Your task to perform on an android device: Open the calendar app, open the side menu, and click the "Day" option Image 0: 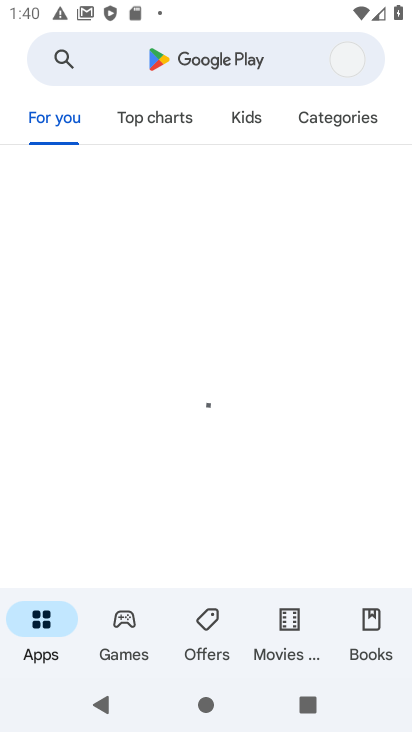
Step 0: press home button
Your task to perform on an android device: Open the calendar app, open the side menu, and click the "Day" option Image 1: 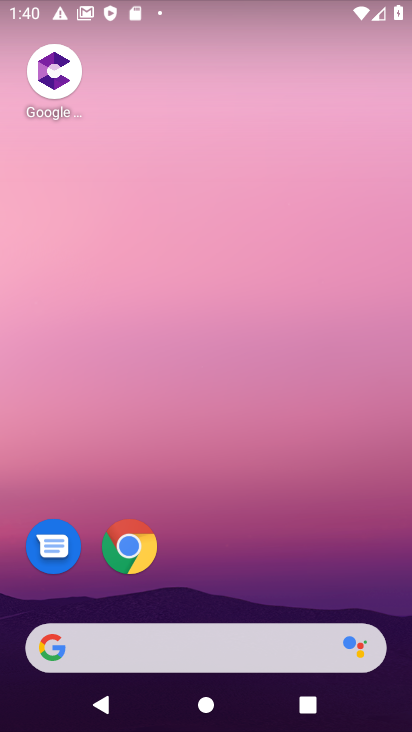
Step 1: drag from (238, 597) to (177, 76)
Your task to perform on an android device: Open the calendar app, open the side menu, and click the "Day" option Image 2: 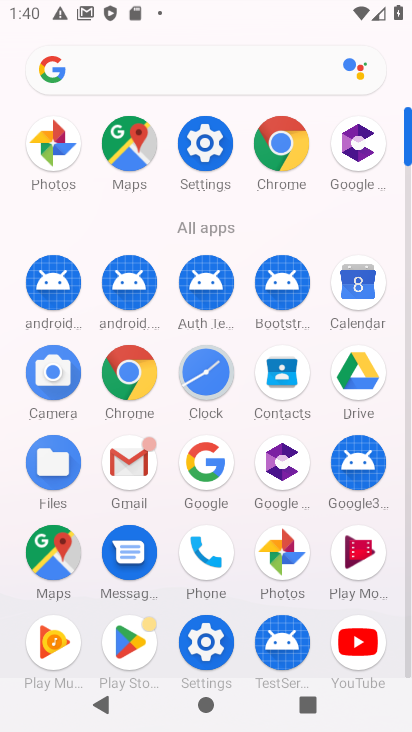
Step 2: click (366, 286)
Your task to perform on an android device: Open the calendar app, open the side menu, and click the "Day" option Image 3: 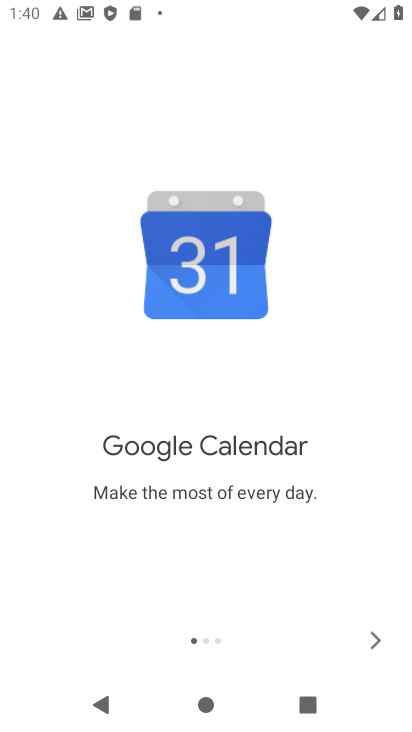
Step 3: click (374, 645)
Your task to perform on an android device: Open the calendar app, open the side menu, and click the "Day" option Image 4: 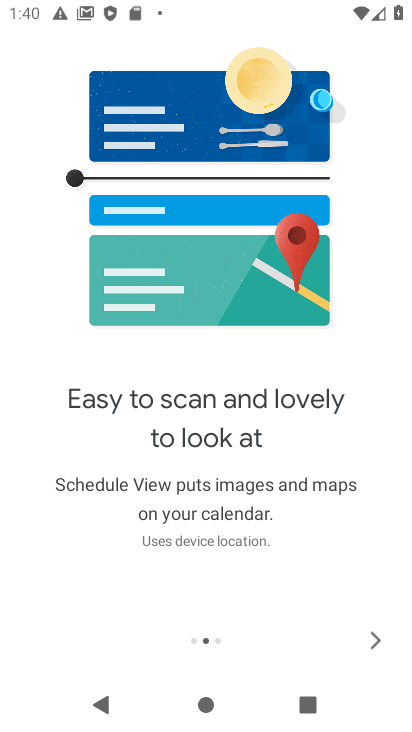
Step 4: click (374, 645)
Your task to perform on an android device: Open the calendar app, open the side menu, and click the "Day" option Image 5: 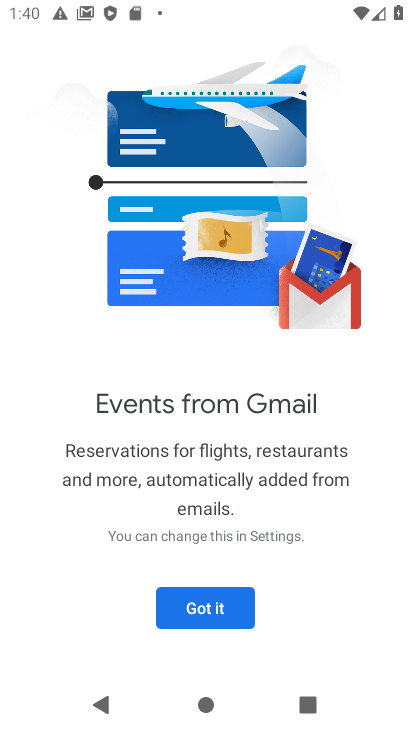
Step 5: click (231, 599)
Your task to perform on an android device: Open the calendar app, open the side menu, and click the "Day" option Image 6: 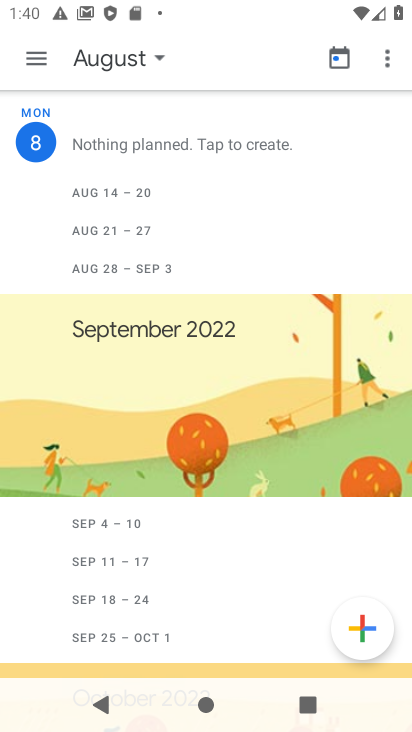
Step 6: click (41, 66)
Your task to perform on an android device: Open the calendar app, open the side menu, and click the "Day" option Image 7: 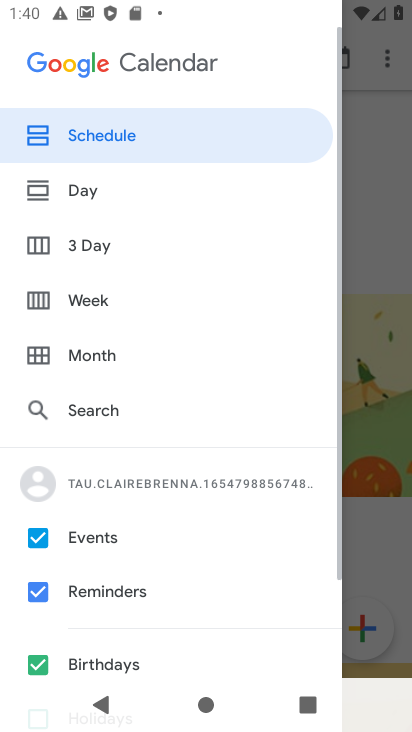
Step 7: click (92, 191)
Your task to perform on an android device: Open the calendar app, open the side menu, and click the "Day" option Image 8: 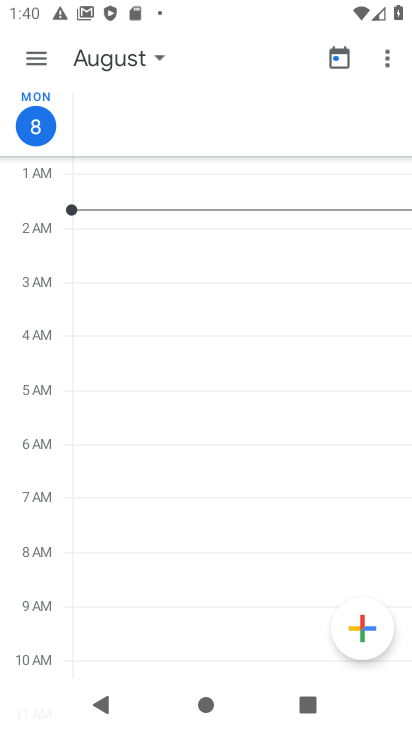
Step 8: task complete